Your task to perform on an android device: show emergency info Image 0: 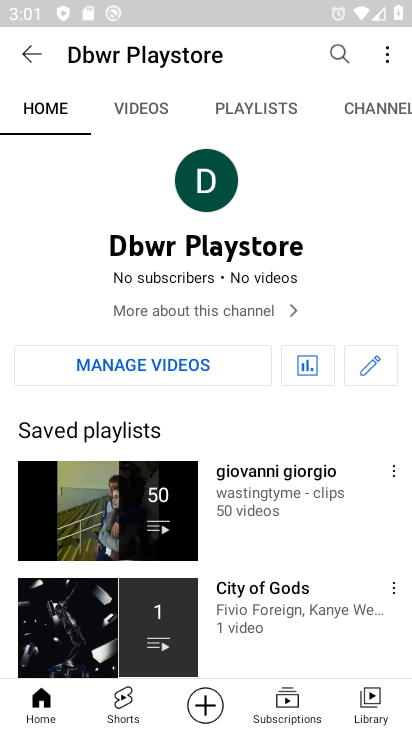
Step 0: press home button
Your task to perform on an android device: show emergency info Image 1: 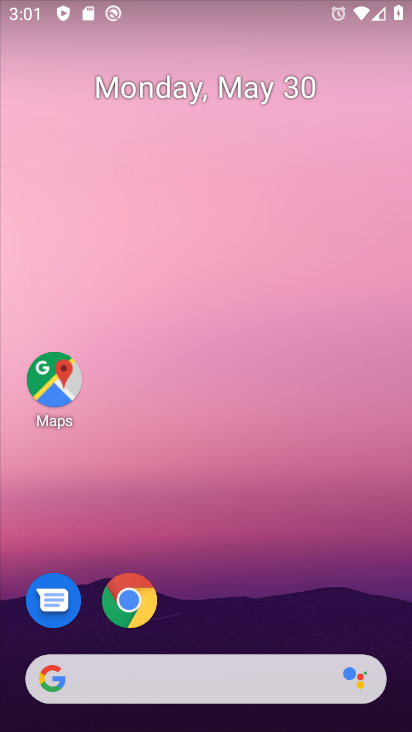
Step 1: drag from (226, 714) to (206, 14)
Your task to perform on an android device: show emergency info Image 2: 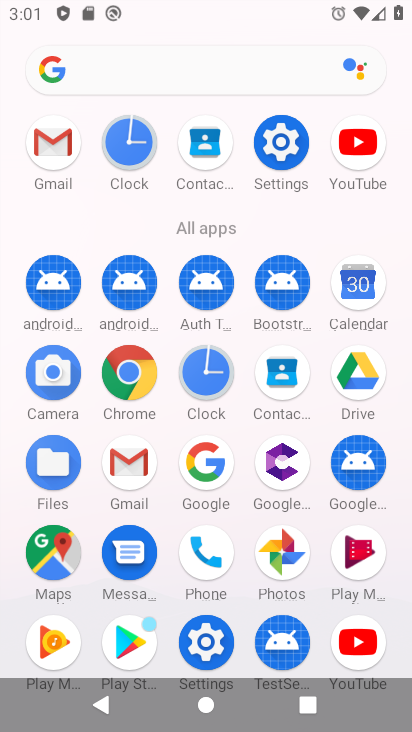
Step 2: click (273, 132)
Your task to perform on an android device: show emergency info Image 3: 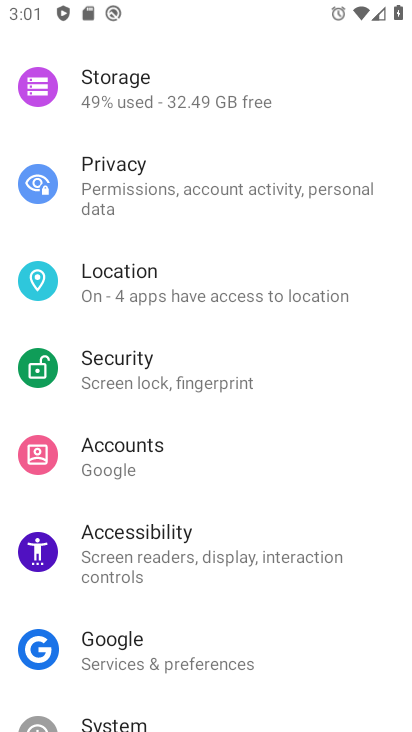
Step 3: drag from (161, 691) to (183, 185)
Your task to perform on an android device: show emergency info Image 4: 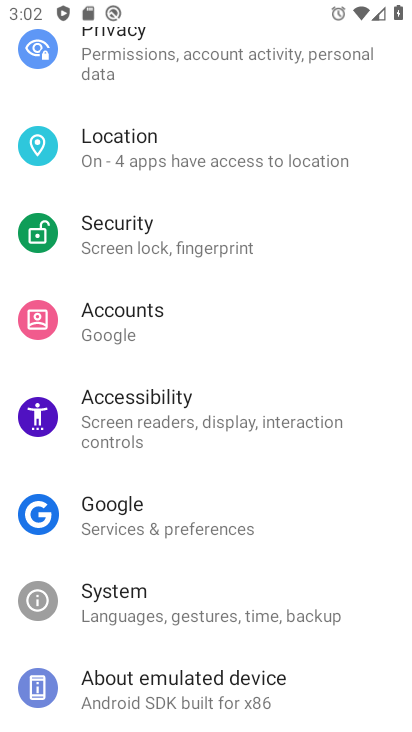
Step 4: click (172, 696)
Your task to perform on an android device: show emergency info Image 5: 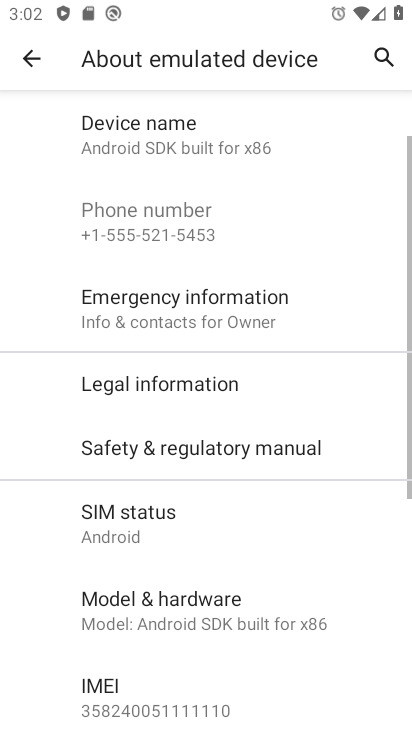
Step 5: drag from (193, 695) to (184, 187)
Your task to perform on an android device: show emergency info Image 6: 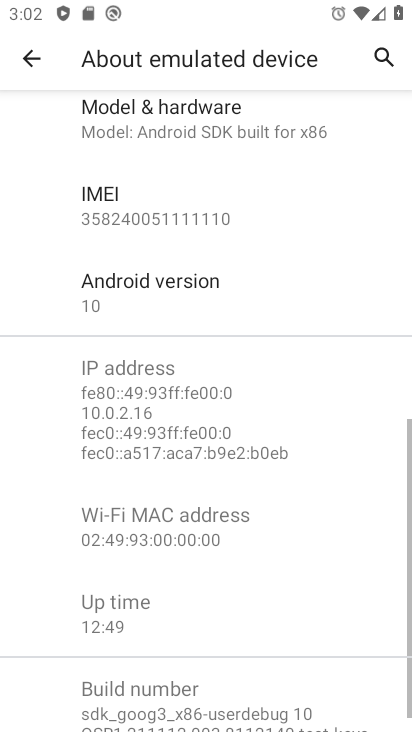
Step 6: drag from (150, 713) to (150, 258)
Your task to perform on an android device: show emergency info Image 7: 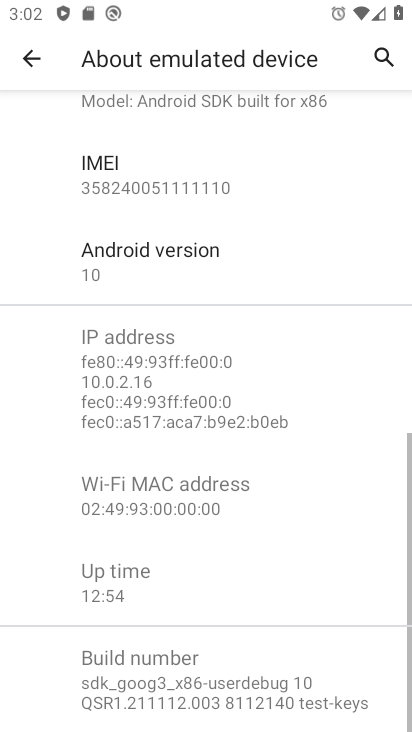
Step 7: drag from (219, 143) to (235, 511)
Your task to perform on an android device: show emergency info Image 8: 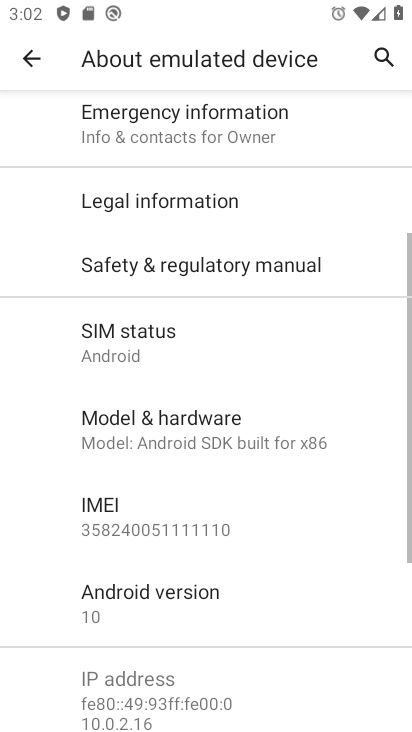
Step 8: click (153, 133)
Your task to perform on an android device: show emergency info Image 9: 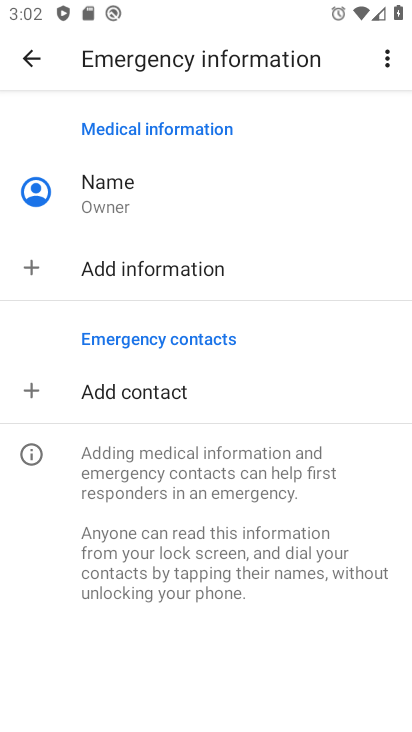
Step 9: task complete